Your task to perform on an android device: Open Google Maps and go to "Timeline" Image 0: 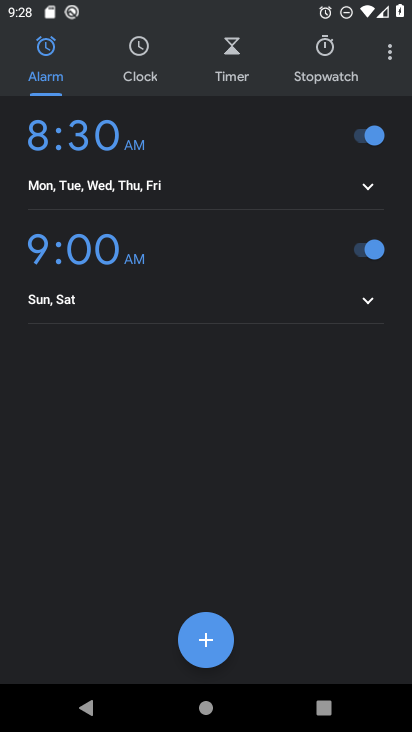
Step 0: press home button
Your task to perform on an android device: Open Google Maps and go to "Timeline" Image 1: 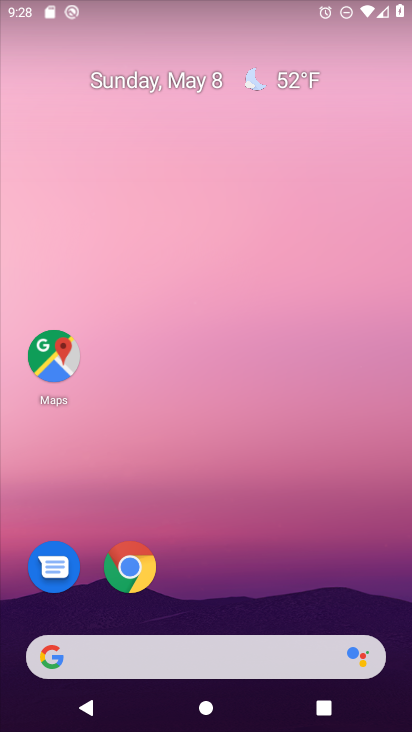
Step 1: drag from (282, 523) to (247, 211)
Your task to perform on an android device: Open Google Maps and go to "Timeline" Image 2: 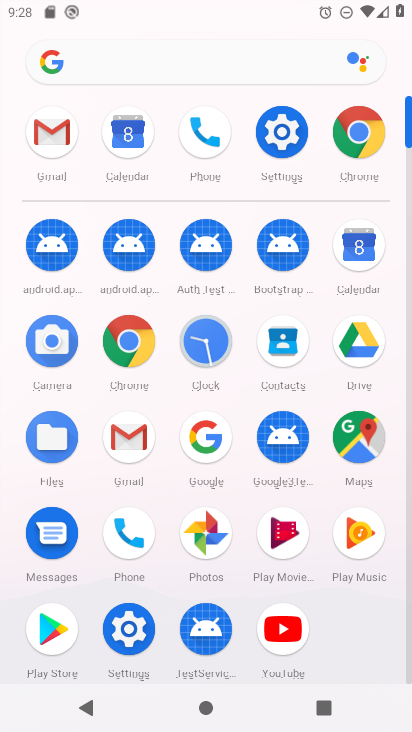
Step 2: click (376, 441)
Your task to perform on an android device: Open Google Maps and go to "Timeline" Image 3: 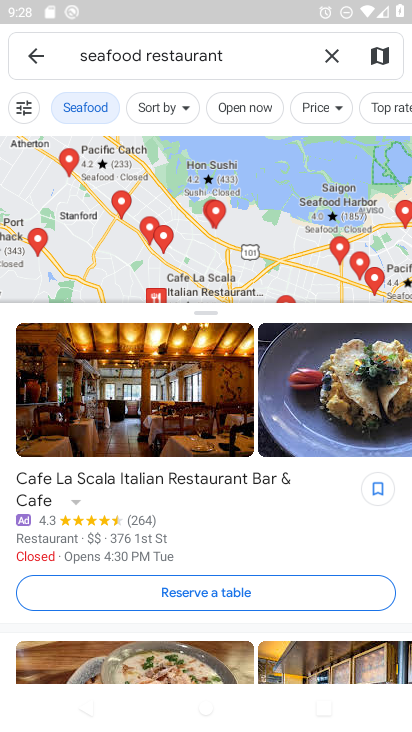
Step 3: click (21, 53)
Your task to perform on an android device: Open Google Maps and go to "Timeline" Image 4: 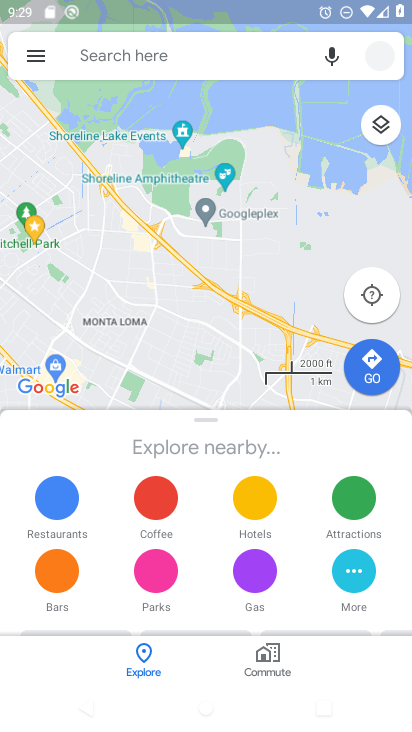
Step 4: click (34, 56)
Your task to perform on an android device: Open Google Maps and go to "Timeline" Image 5: 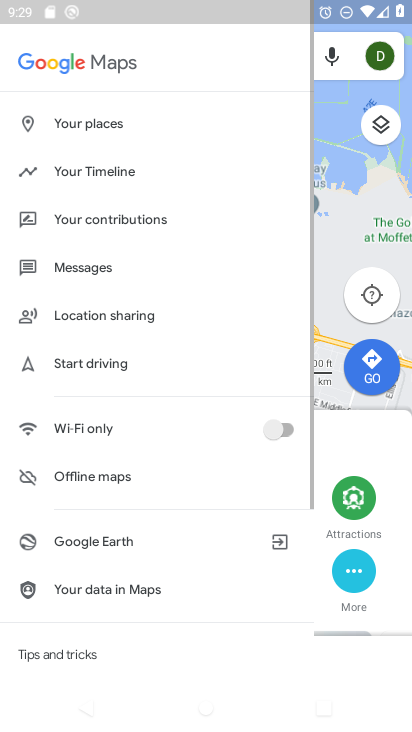
Step 5: click (34, 55)
Your task to perform on an android device: Open Google Maps and go to "Timeline" Image 6: 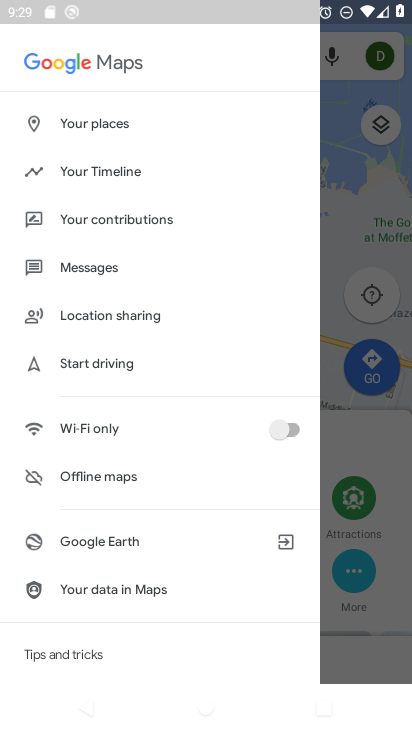
Step 6: click (128, 176)
Your task to perform on an android device: Open Google Maps and go to "Timeline" Image 7: 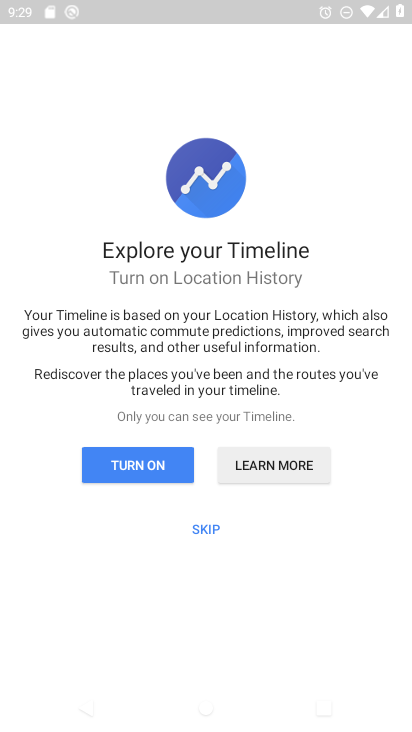
Step 7: click (301, 457)
Your task to perform on an android device: Open Google Maps and go to "Timeline" Image 8: 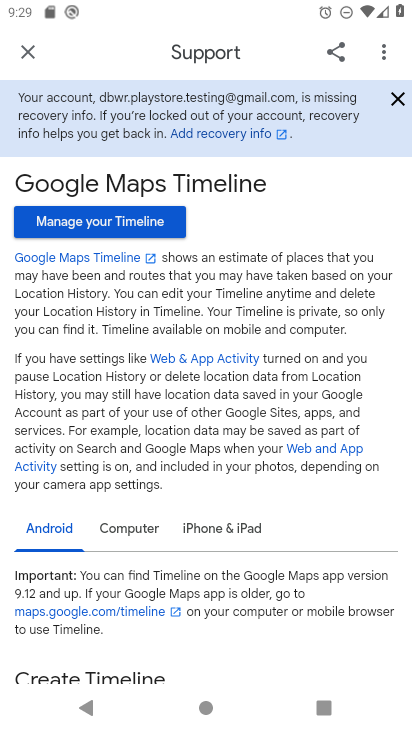
Step 8: task complete